Your task to perform on an android device: empty trash in the gmail app Image 0: 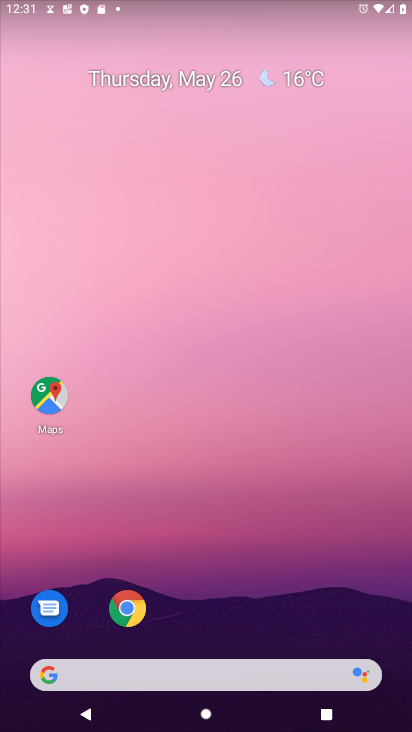
Step 0: drag from (245, 710) to (245, 23)
Your task to perform on an android device: empty trash in the gmail app Image 1: 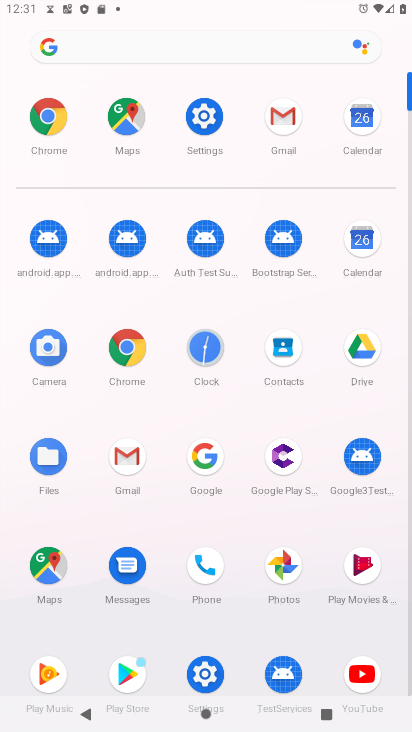
Step 1: click (129, 455)
Your task to perform on an android device: empty trash in the gmail app Image 2: 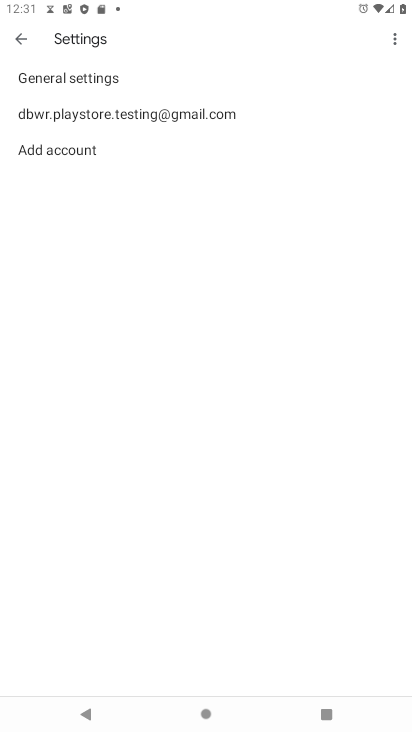
Step 2: click (21, 39)
Your task to perform on an android device: empty trash in the gmail app Image 3: 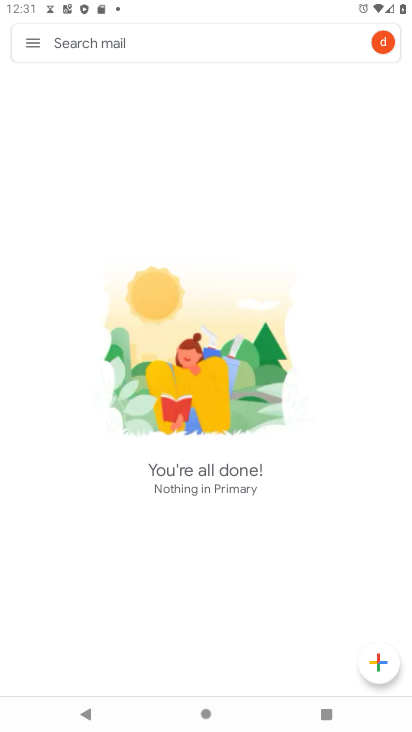
Step 3: click (34, 40)
Your task to perform on an android device: empty trash in the gmail app Image 4: 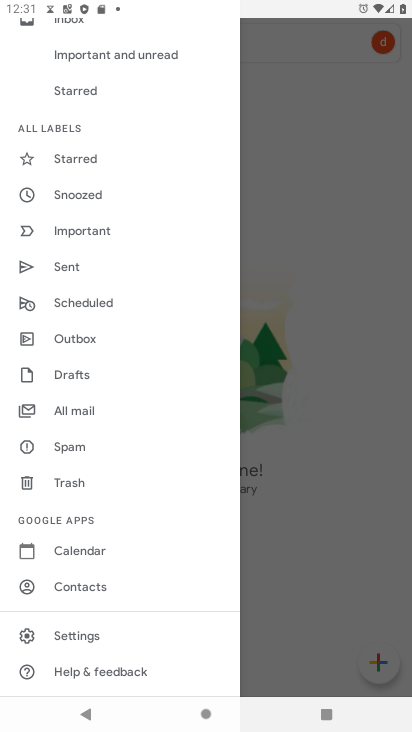
Step 4: click (59, 481)
Your task to perform on an android device: empty trash in the gmail app Image 5: 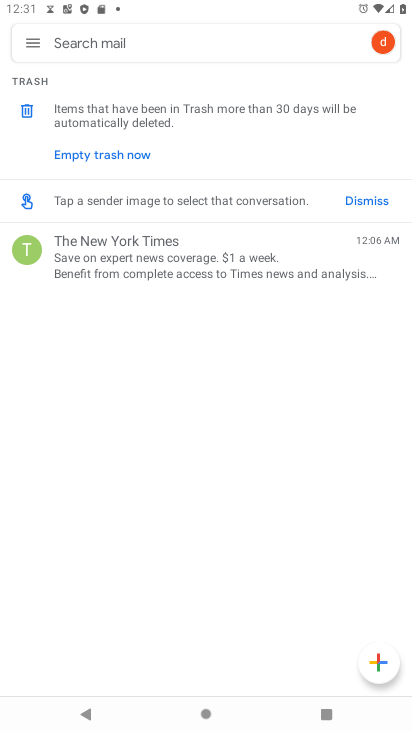
Step 5: click (78, 157)
Your task to perform on an android device: empty trash in the gmail app Image 6: 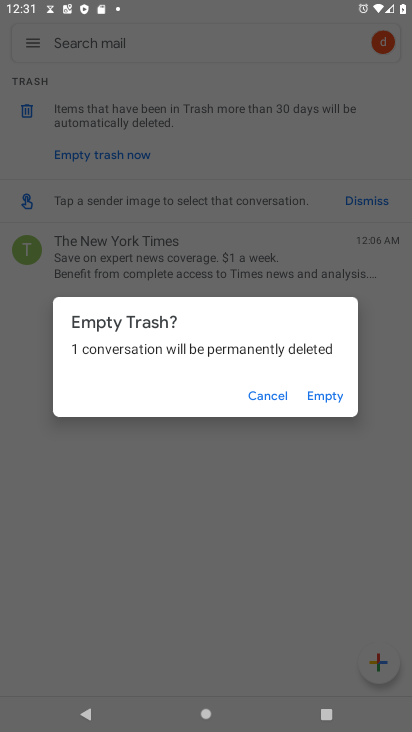
Step 6: click (329, 397)
Your task to perform on an android device: empty trash in the gmail app Image 7: 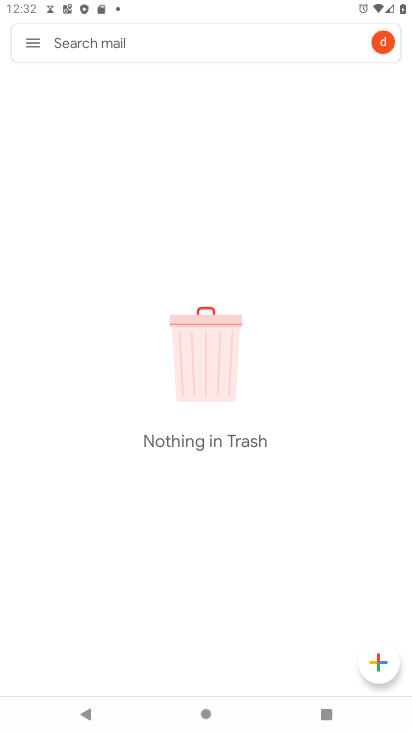
Step 7: task complete